Your task to perform on an android device: open wifi settings Image 0: 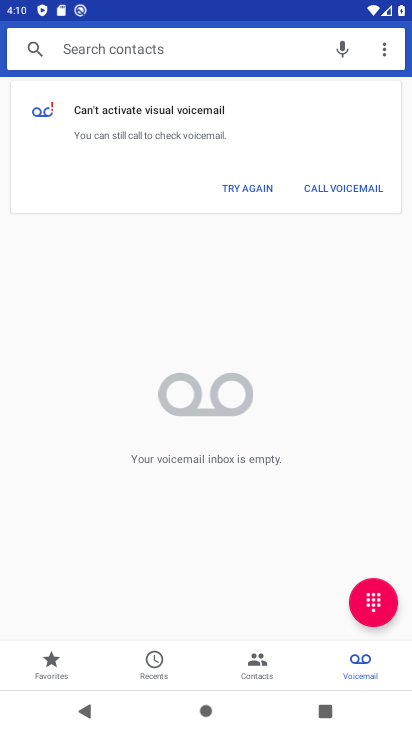
Step 0: press home button
Your task to perform on an android device: open wifi settings Image 1: 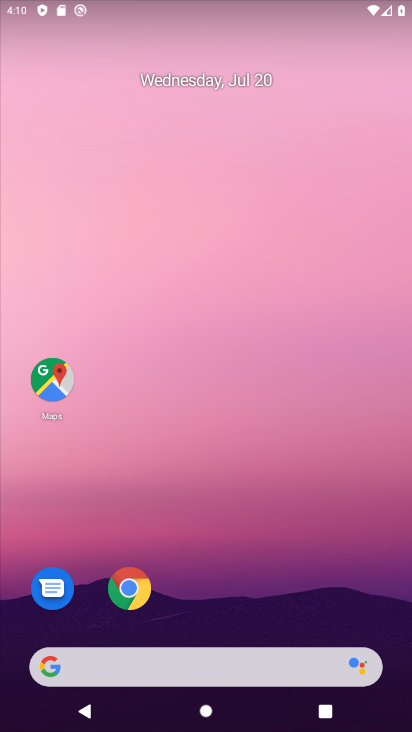
Step 1: drag from (225, 621) to (282, 132)
Your task to perform on an android device: open wifi settings Image 2: 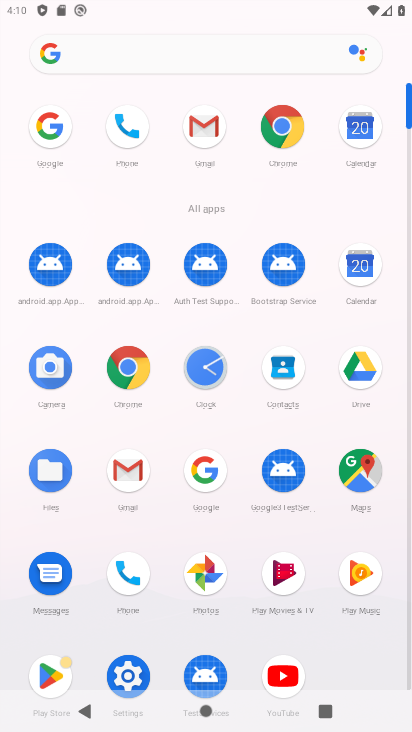
Step 2: click (126, 671)
Your task to perform on an android device: open wifi settings Image 3: 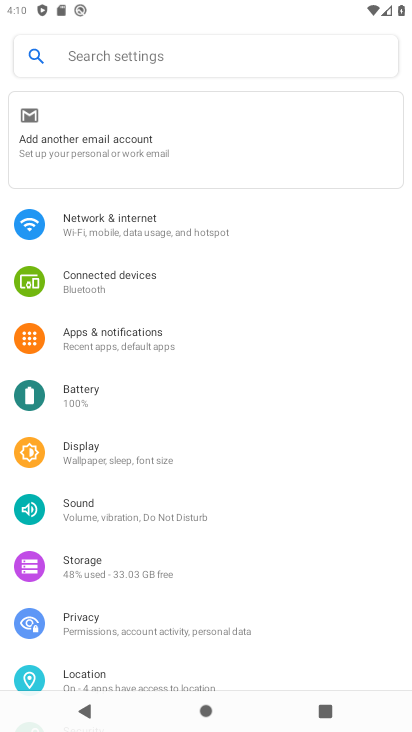
Step 3: click (165, 230)
Your task to perform on an android device: open wifi settings Image 4: 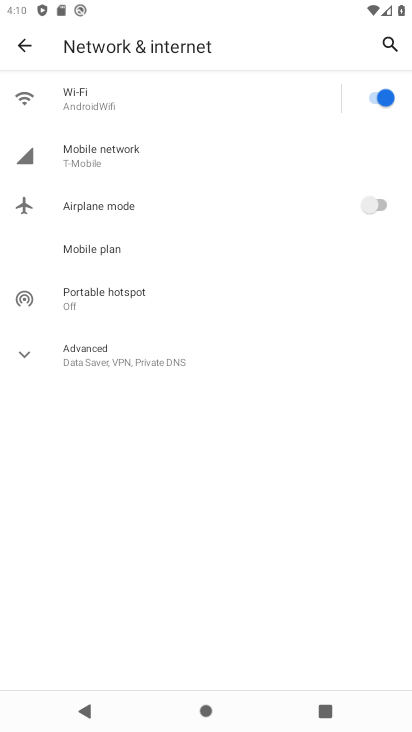
Step 4: click (157, 90)
Your task to perform on an android device: open wifi settings Image 5: 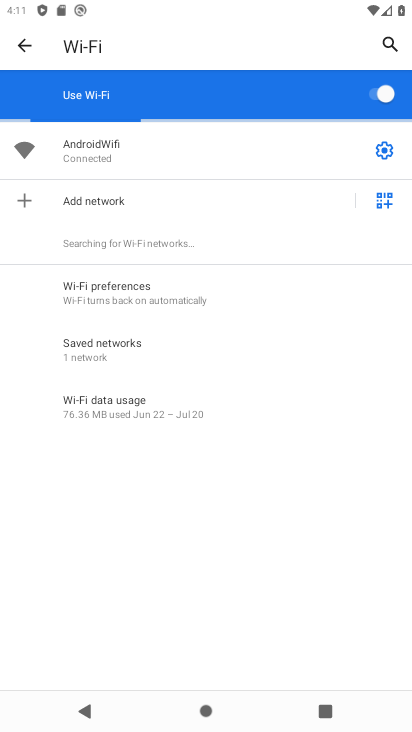
Step 5: task complete